Your task to perform on an android device: What is the news today? Image 0: 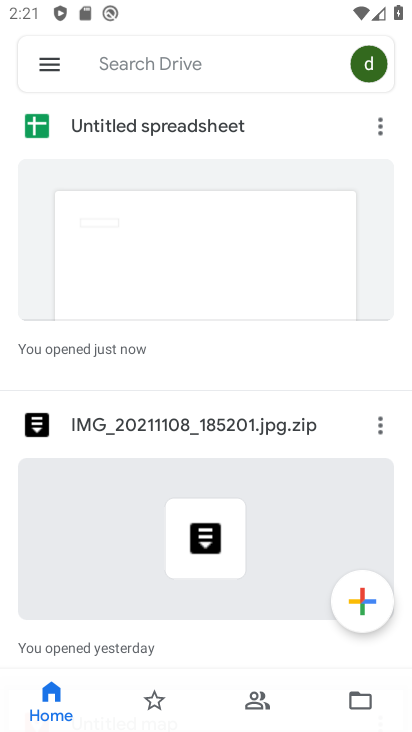
Step 0: press home button
Your task to perform on an android device: What is the news today? Image 1: 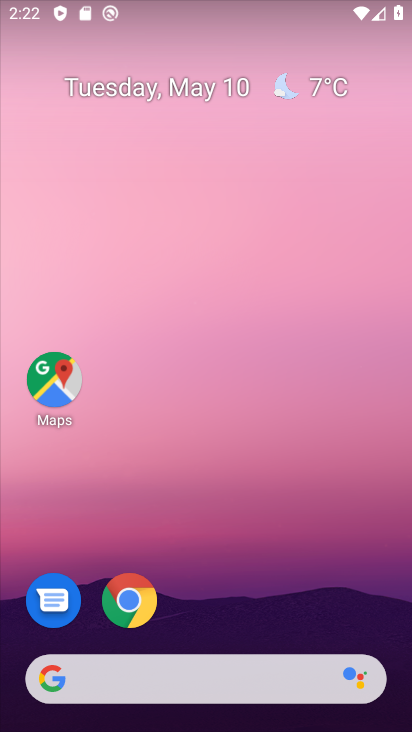
Step 1: drag from (240, 666) to (246, 190)
Your task to perform on an android device: What is the news today? Image 2: 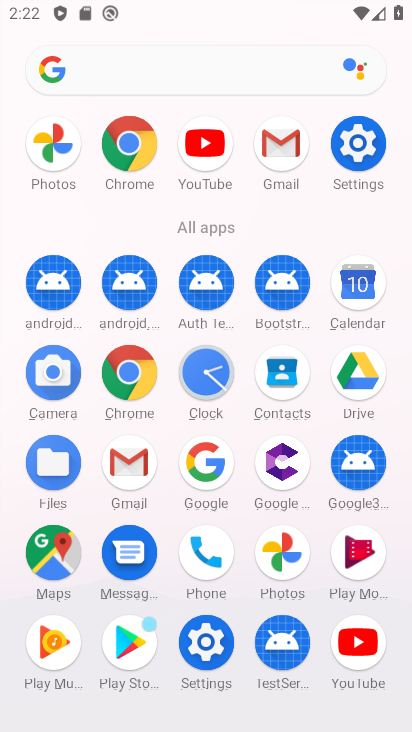
Step 2: click (214, 451)
Your task to perform on an android device: What is the news today? Image 3: 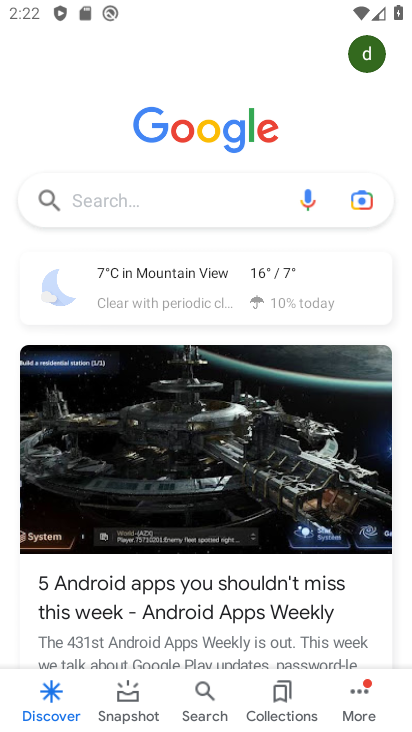
Step 3: task complete